Your task to perform on an android device: Go to Android settings Image 0: 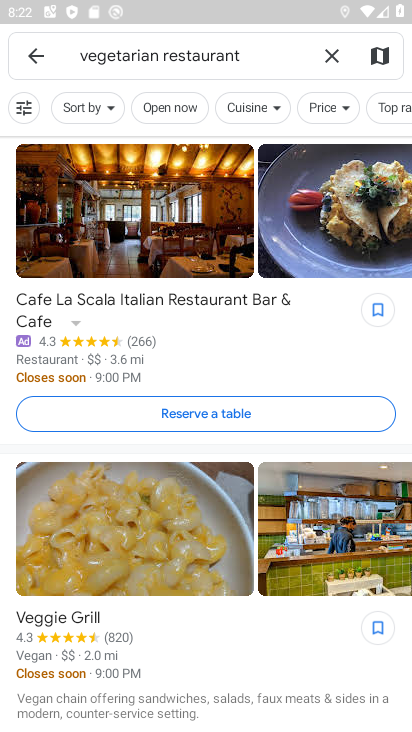
Step 0: press home button
Your task to perform on an android device: Go to Android settings Image 1: 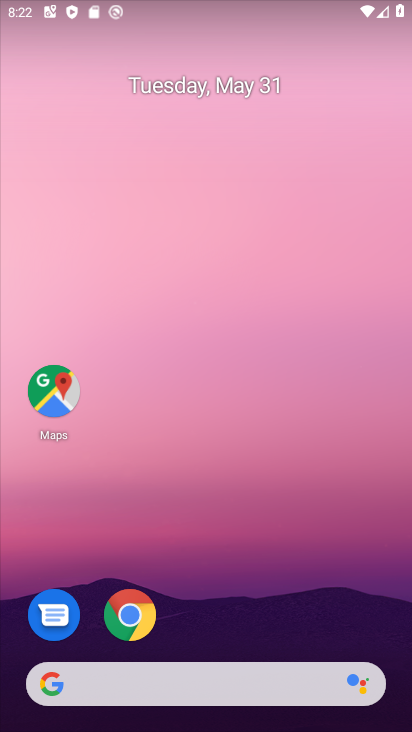
Step 1: drag from (363, 620) to (298, 21)
Your task to perform on an android device: Go to Android settings Image 2: 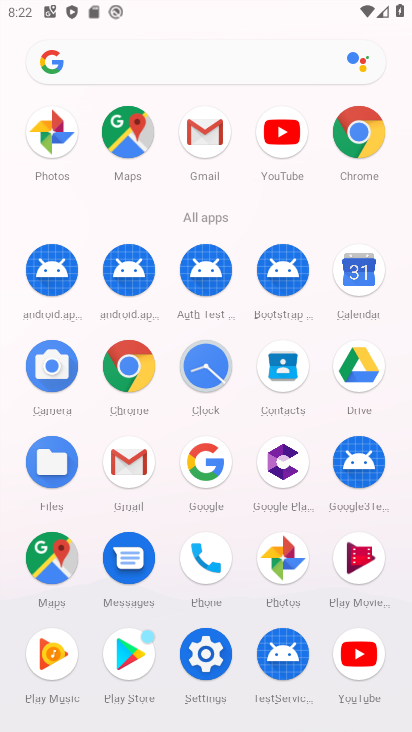
Step 2: click (208, 647)
Your task to perform on an android device: Go to Android settings Image 3: 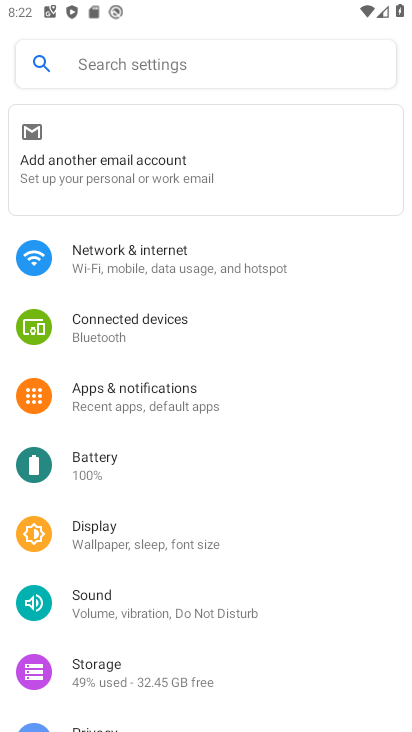
Step 3: drag from (239, 663) to (260, 293)
Your task to perform on an android device: Go to Android settings Image 4: 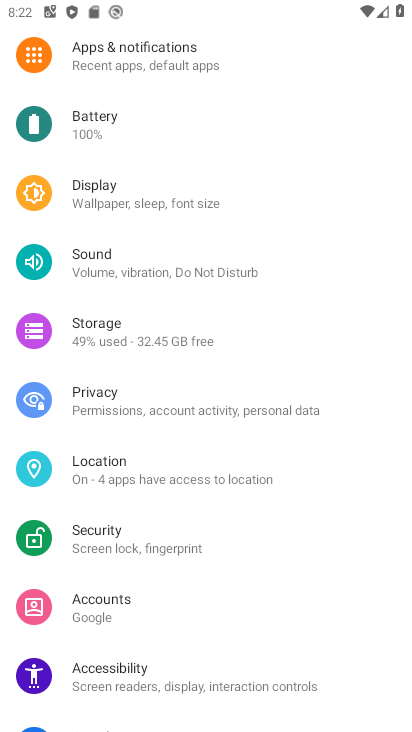
Step 4: drag from (258, 632) to (281, 165)
Your task to perform on an android device: Go to Android settings Image 5: 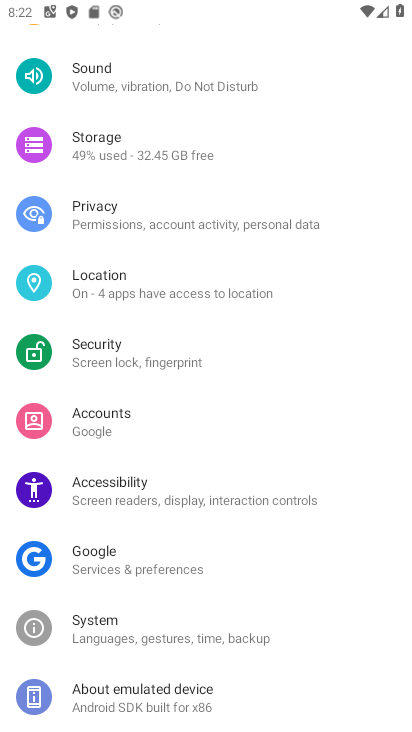
Step 5: drag from (159, 681) to (155, 421)
Your task to perform on an android device: Go to Android settings Image 6: 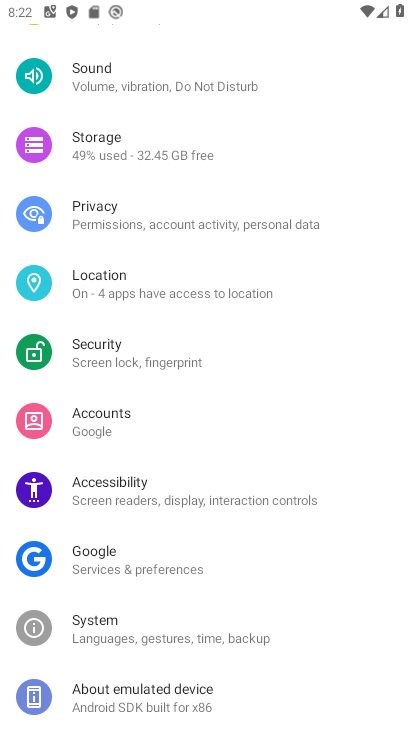
Step 6: click (142, 705)
Your task to perform on an android device: Go to Android settings Image 7: 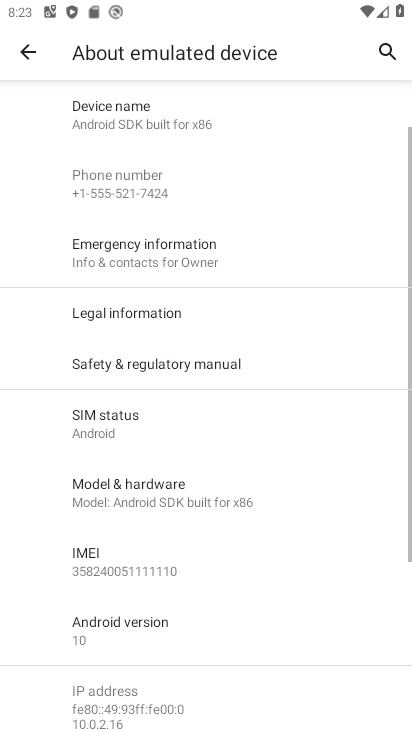
Step 7: task complete